Your task to perform on an android device: What's on my calendar tomorrow? Image 0: 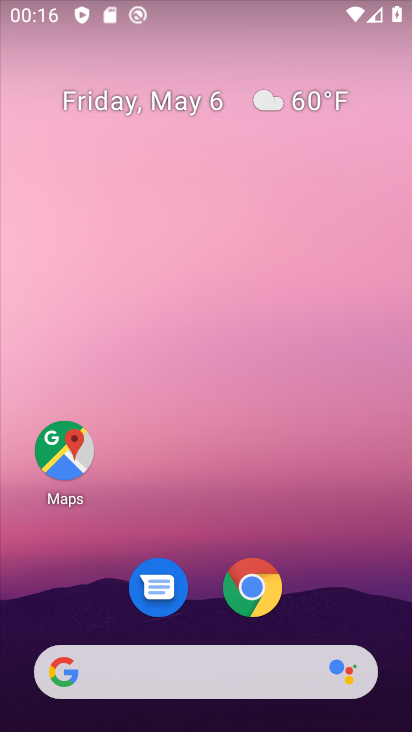
Step 0: drag from (372, 626) to (361, 257)
Your task to perform on an android device: What's on my calendar tomorrow? Image 1: 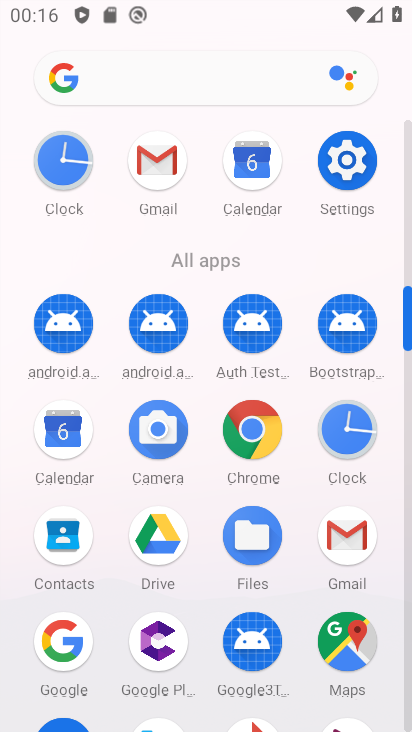
Step 1: click (66, 445)
Your task to perform on an android device: What's on my calendar tomorrow? Image 2: 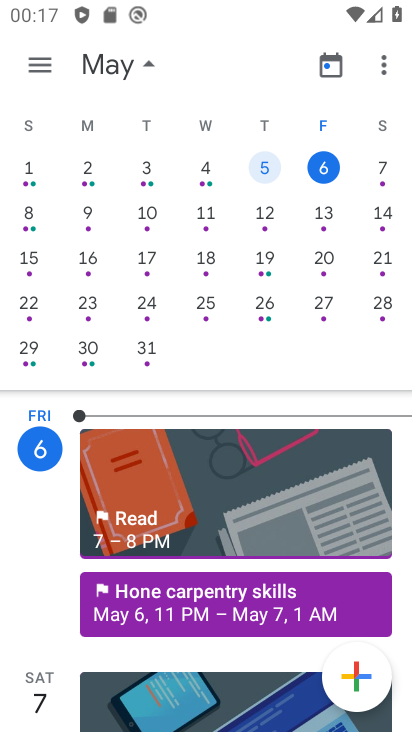
Step 2: click (319, 164)
Your task to perform on an android device: What's on my calendar tomorrow? Image 3: 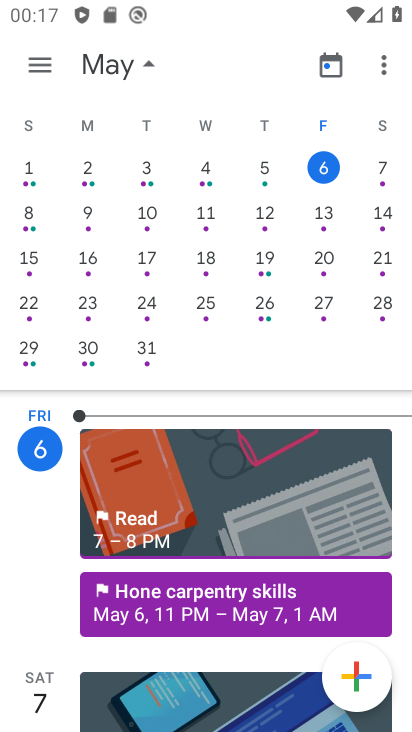
Step 3: click (332, 170)
Your task to perform on an android device: What's on my calendar tomorrow? Image 4: 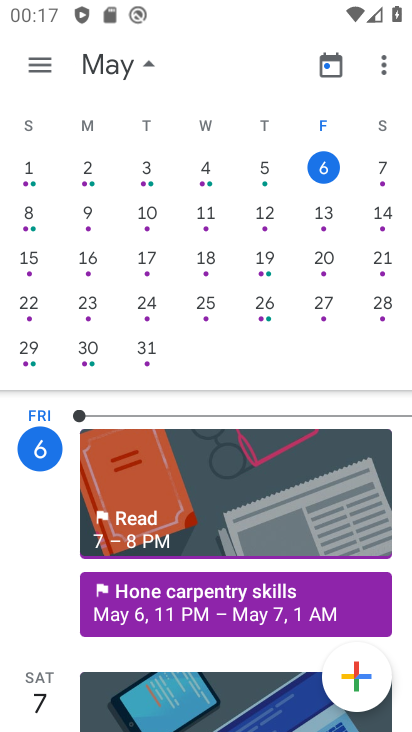
Step 4: task complete